Your task to perform on an android device: check battery use Image 0: 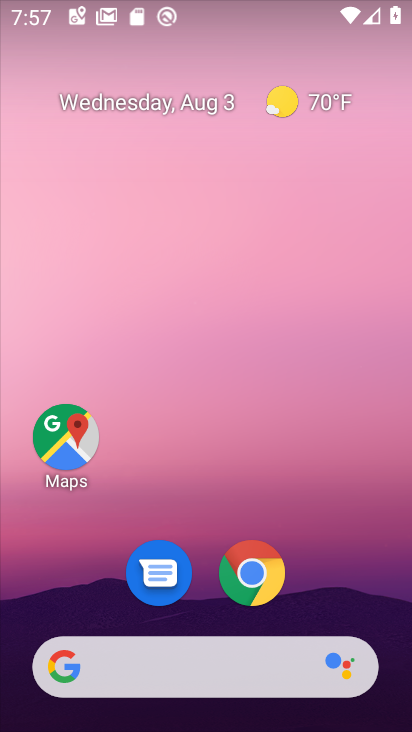
Step 0: drag from (331, 549) to (296, 40)
Your task to perform on an android device: check battery use Image 1: 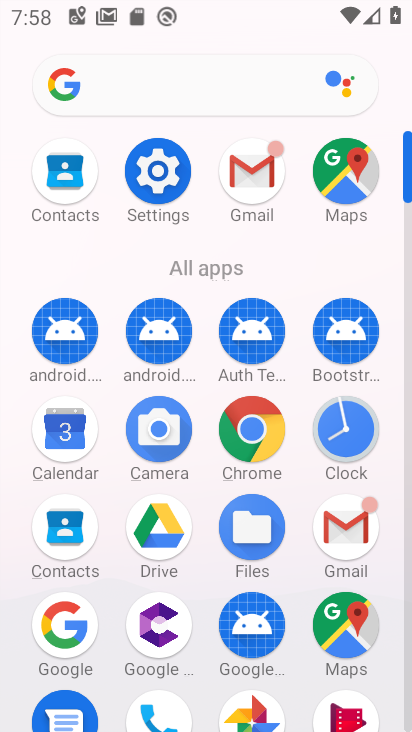
Step 1: click (161, 174)
Your task to perform on an android device: check battery use Image 2: 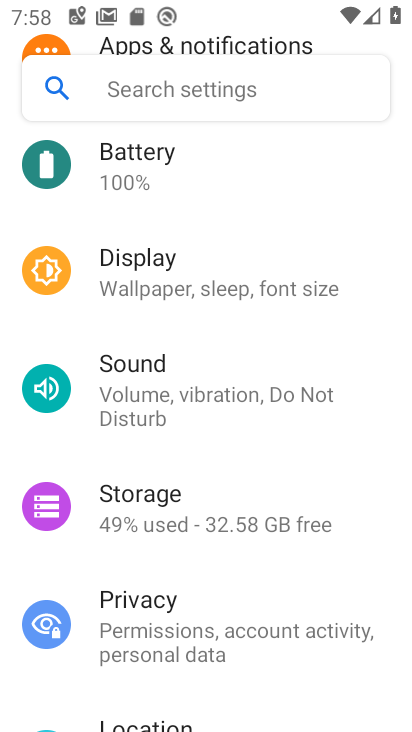
Step 2: click (132, 177)
Your task to perform on an android device: check battery use Image 3: 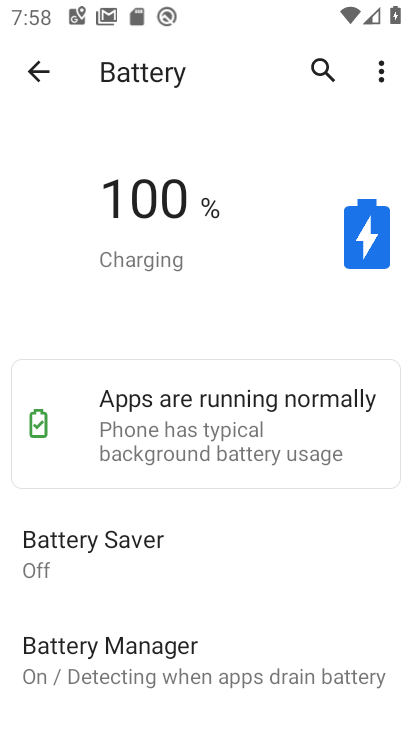
Step 3: click (377, 72)
Your task to perform on an android device: check battery use Image 4: 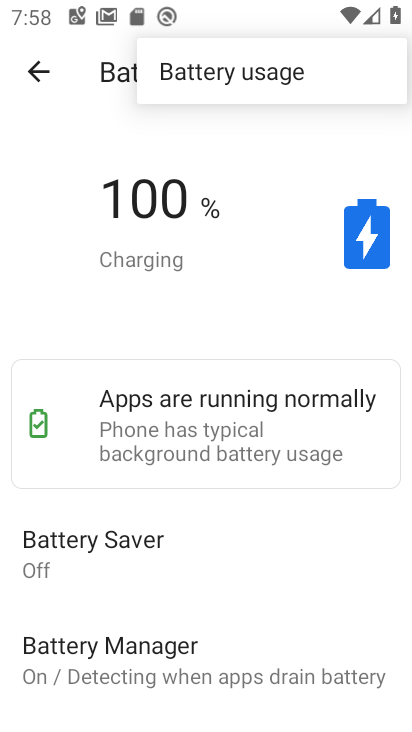
Step 4: click (277, 82)
Your task to perform on an android device: check battery use Image 5: 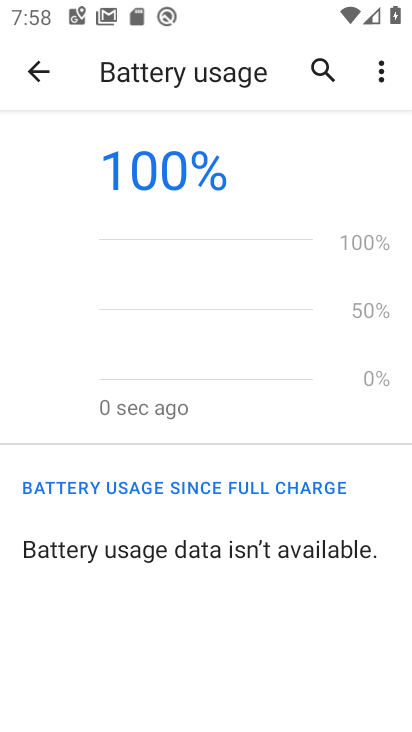
Step 5: task complete